Your task to perform on an android device: turn on improve location accuracy Image 0: 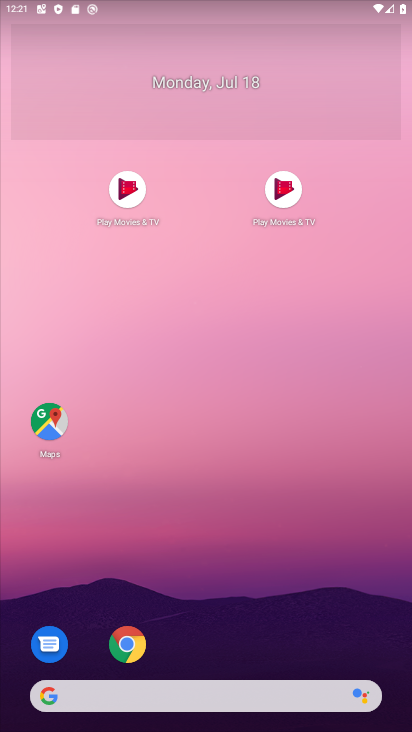
Step 0: drag from (316, 638) to (262, 249)
Your task to perform on an android device: turn on improve location accuracy Image 1: 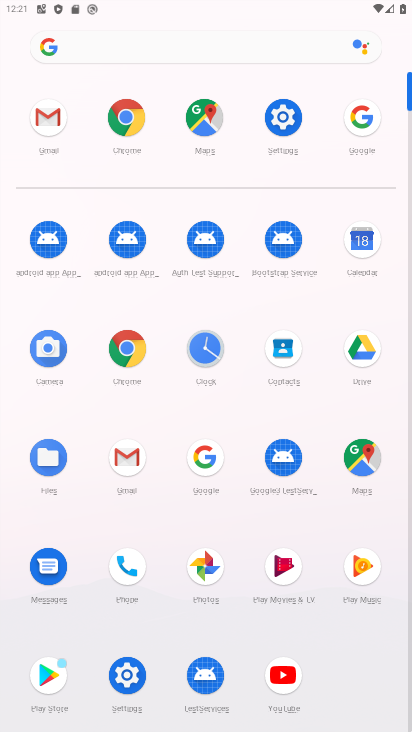
Step 1: click (283, 120)
Your task to perform on an android device: turn on improve location accuracy Image 2: 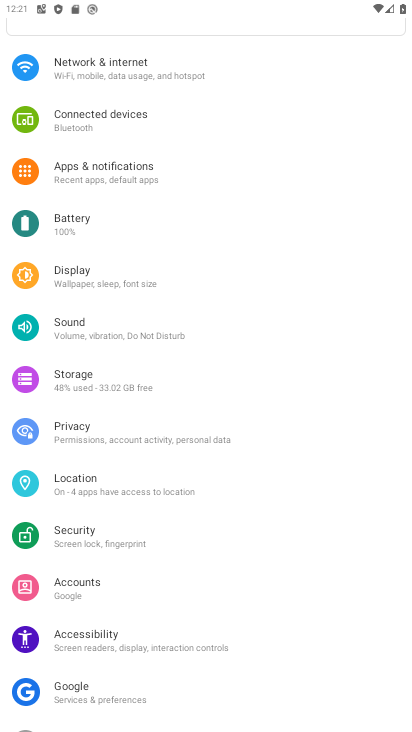
Step 2: click (70, 481)
Your task to perform on an android device: turn on improve location accuracy Image 3: 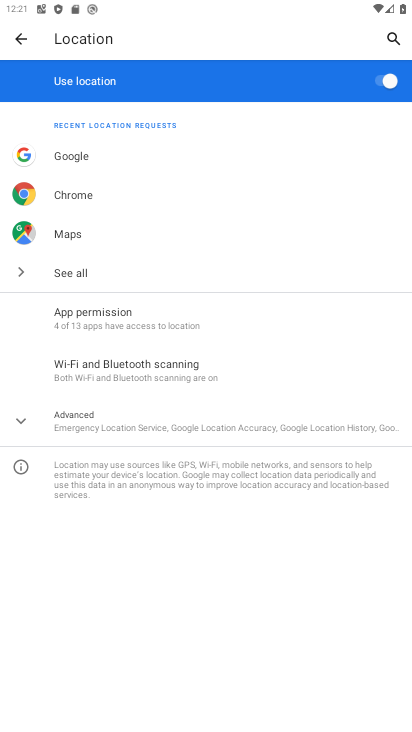
Step 3: click (113, 424)
Your task to perform on an android device: turn on improve location accuracy Image 4: 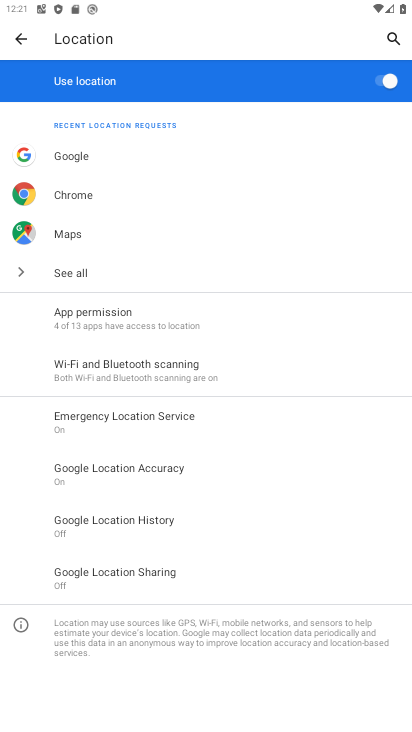
Step 4: click (157, 471)
Your task to perform on an android device: turn on improve location accuracy Image 5: 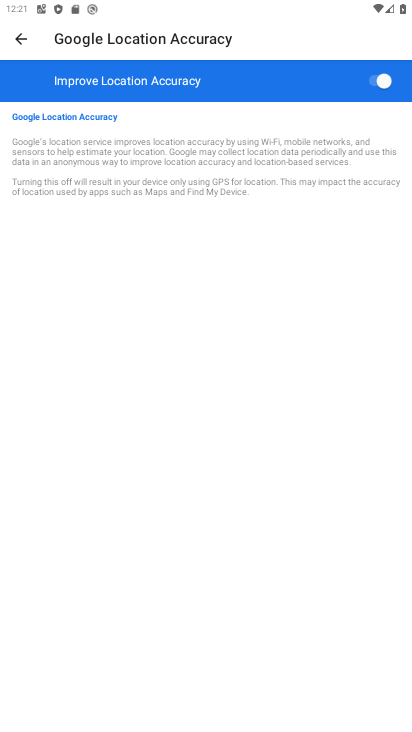
Step 5: task complete